Your task to perform on an android device: What is the recent news? Image 0: 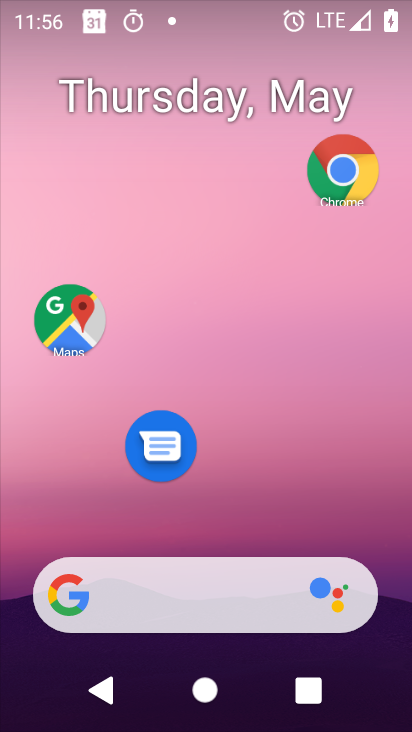
Step 0: drag from (351, 619) to (335, 10)
Your task to perform on an android device: What is the recent news? Image 1: 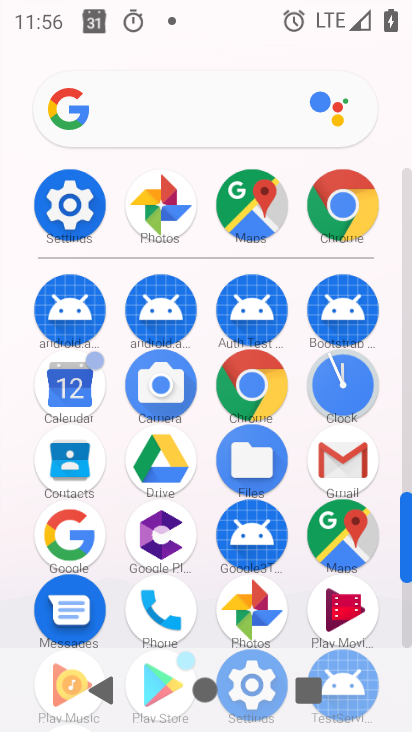
Step 1: click (245, 381)
Your task to perform on an android device: What is the recent news? Image 2: 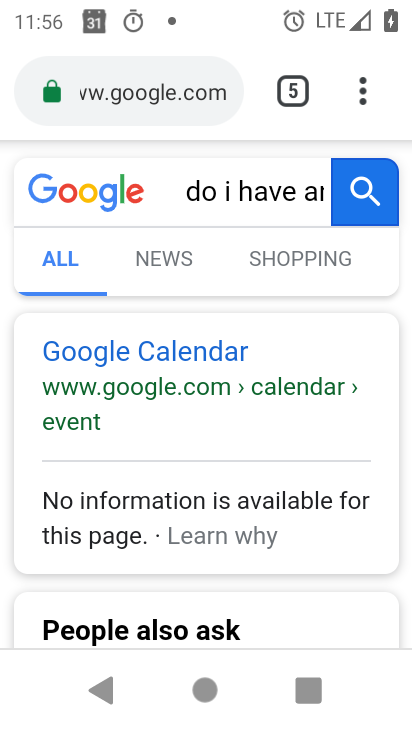
Step 2: click (99, 80)
Your task to perform on an android device: What is the recent news? Image 3: 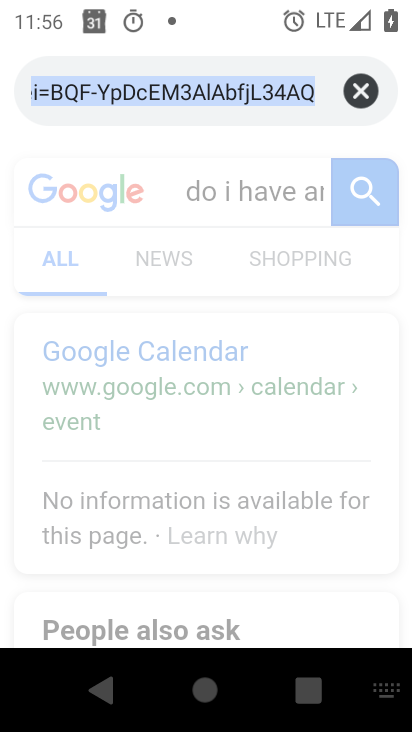
Step 3: click (356, 93)
Your task to perform on an android device: What is the recent news? Image 4: 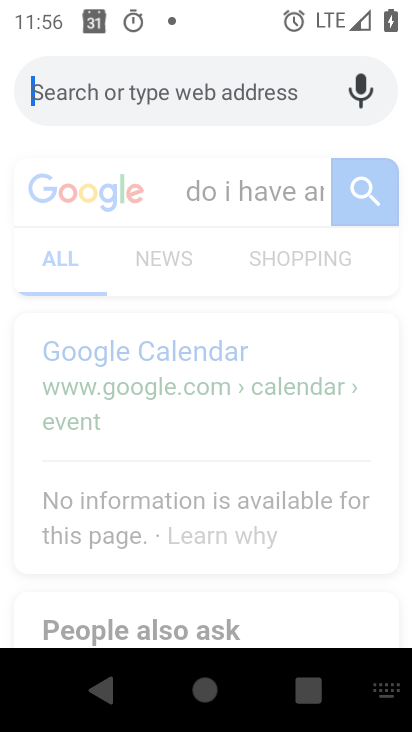
Step 4: type "recent news"
Your task to perform on an android device: What is the recent news? Image 5: 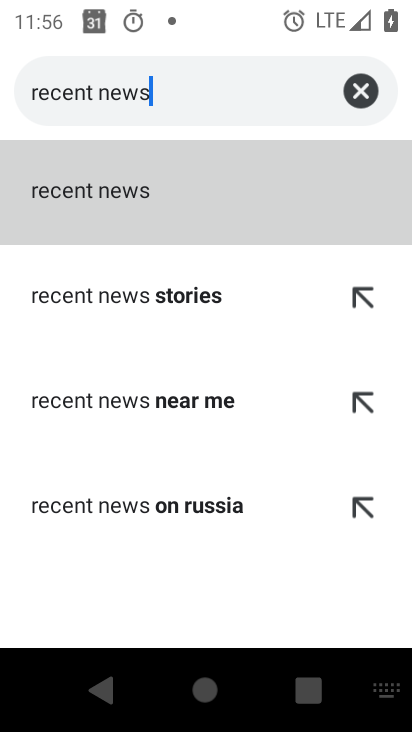
Step 5: click (297, 215)
Your task to perform on an android device: What is the recent news? Image 6: 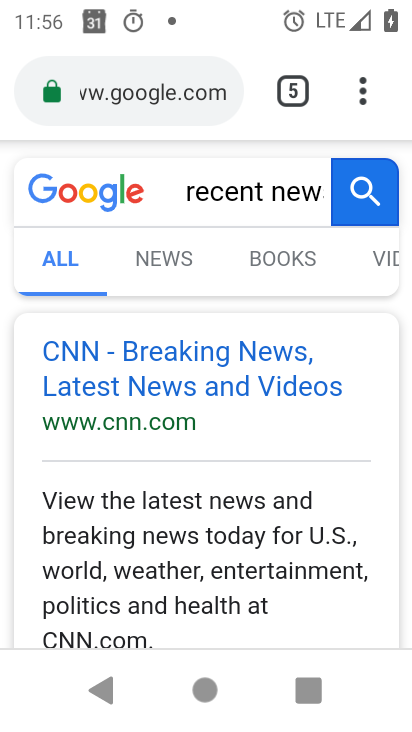
Step 6: task complete